Your task to perform on an android device: check android version Image 0: 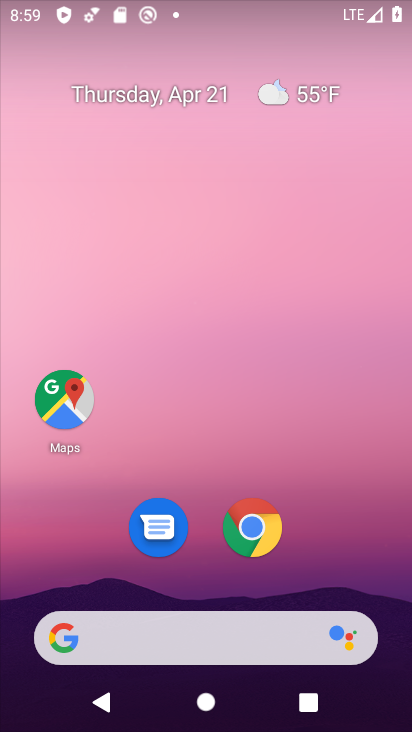
Step 0: drag from (195, 576) to (263, 30)
Your task to perform on an android device: check android version Image 1: 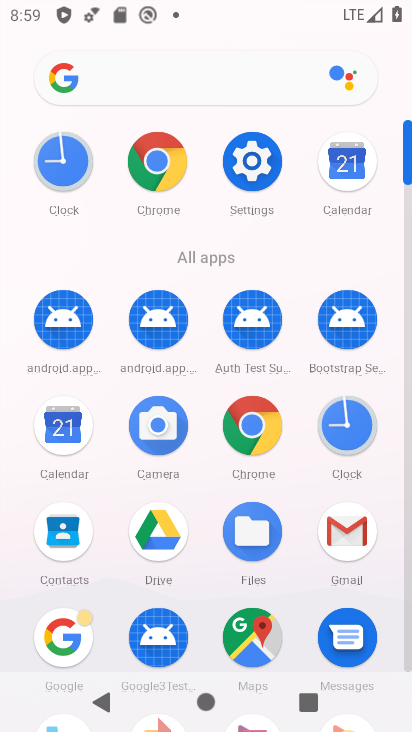
Step 1: drag from (200, 580) to (247, 150)
Your task to perform on an android device: check android version Image 2: 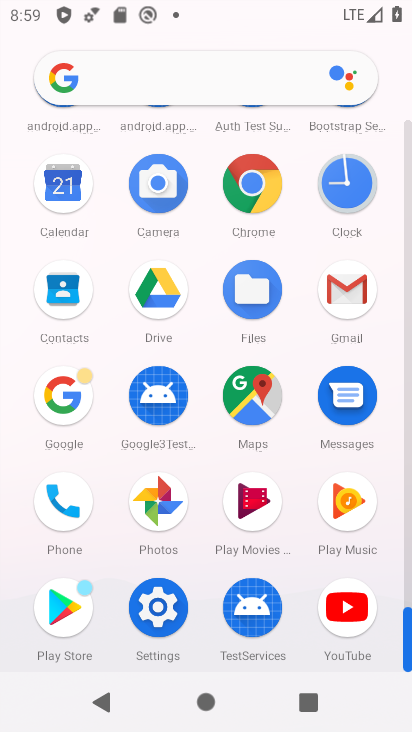
Step 2: click (159, 602)
Your task to perform on an android device: check android version Image 3: 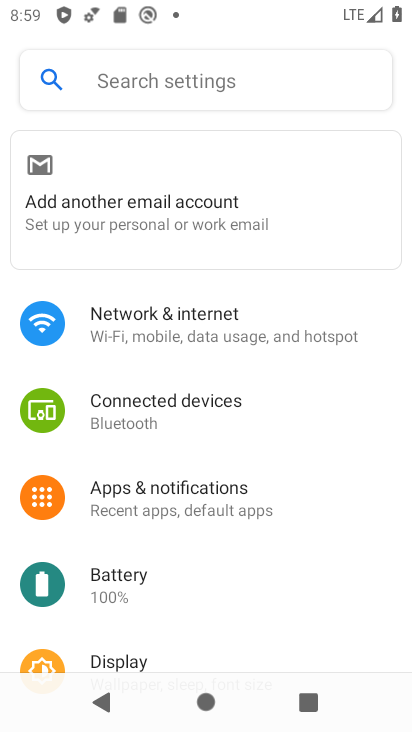
Step 3: drag from (175, 623) to (207, 202)
Your task to perform on an android device: check android version Image 4: 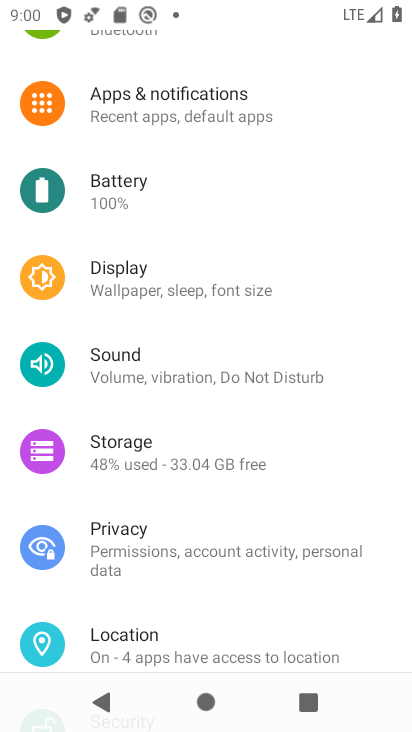
Step 4: drag from (216, 631) to (224, 125)
Your task to perform on an android device: check android version Image 5: 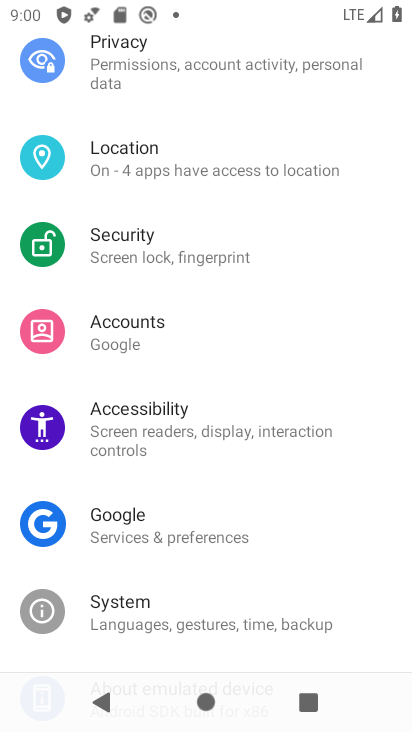
Step 5: drag from (185, 598) to (191, 211)
Your task to perform on an android device: check android version Image 6: 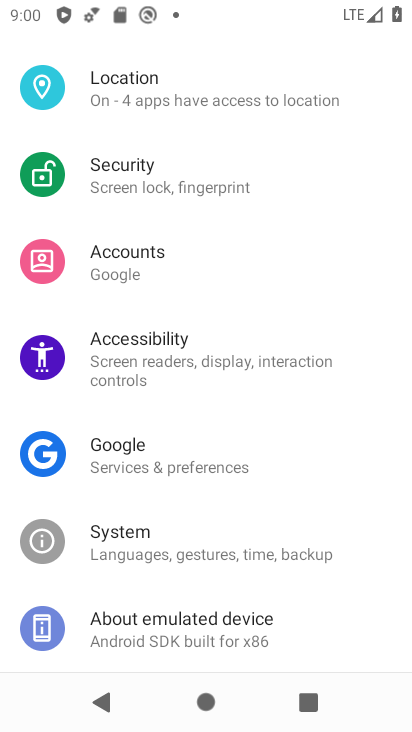
Step 6: click (139, 624)
Your task to perform on an android device: check android version Image 7: 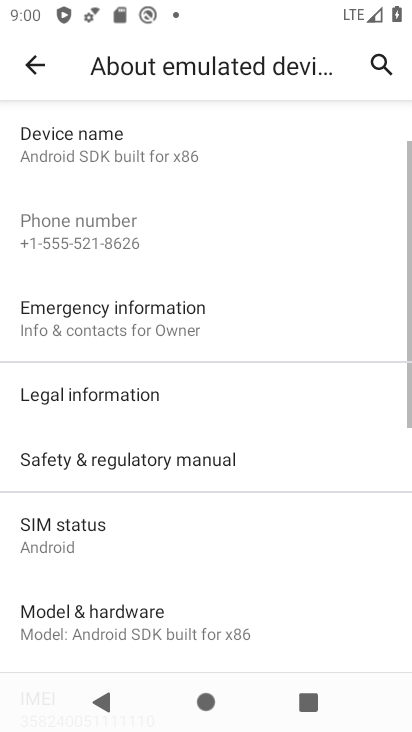
Step 7: drag from (163, 549) to (170, 86)
Your task to perform on an android device: check android version Image 8: 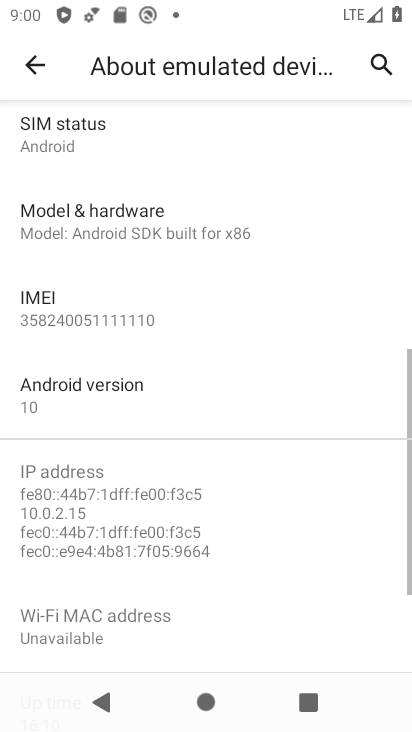
Step 8: click (108, 395)
Your task to perform on an android device: check android version Image 9: 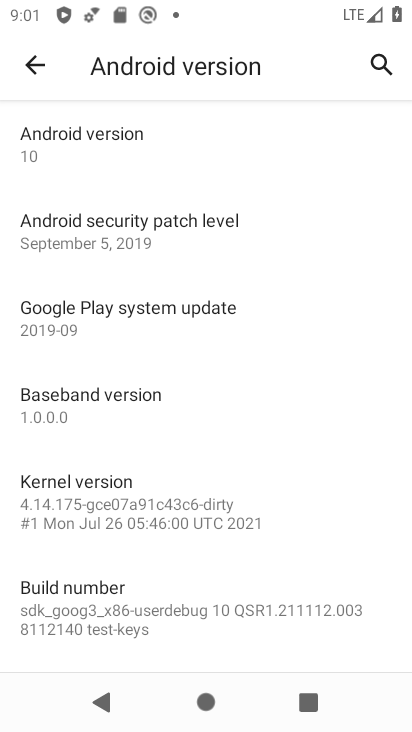
Step 9: task complete